Your task to perform on an android device: search for accent chairs on article.com Image 0: 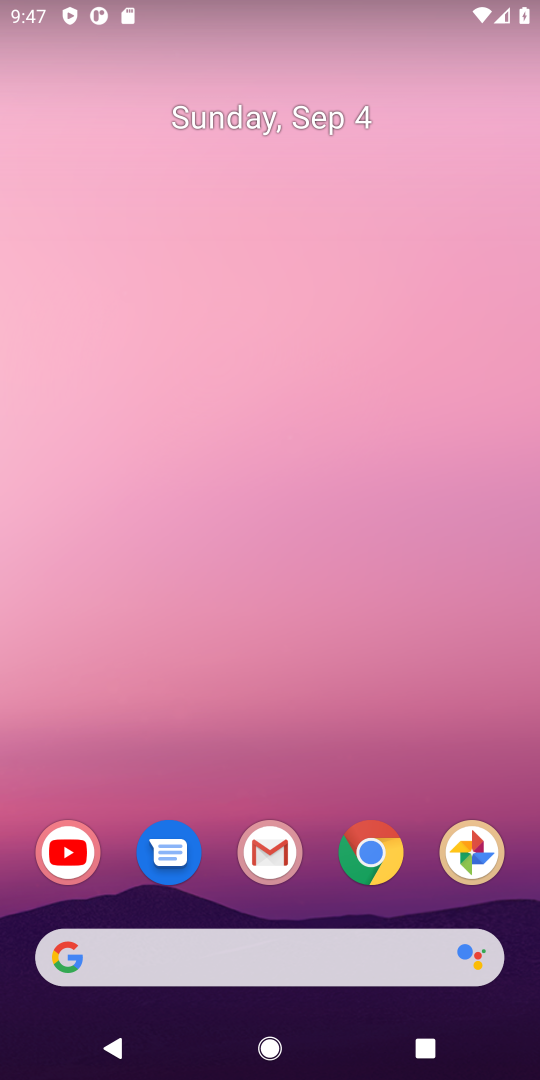
Step 0: drag from (312, 441) to (213, 34)
Your task to perform on an android device: search for accent chairs on article.com Image 1: 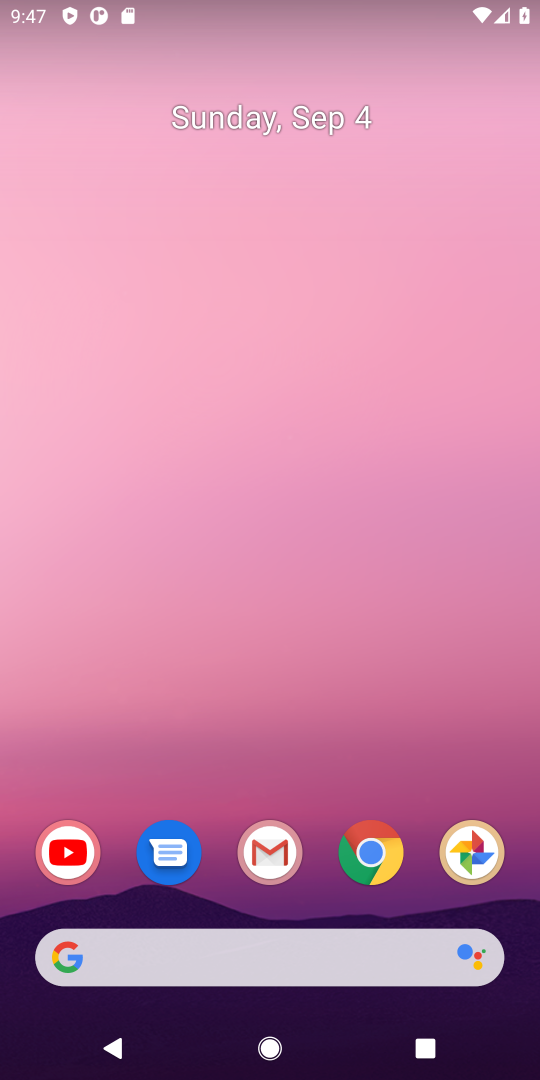
Step 1: drag from (436, 887) to (246, 23)
Your task to perform on an android device: search for accent chairs on article.com Image 2: 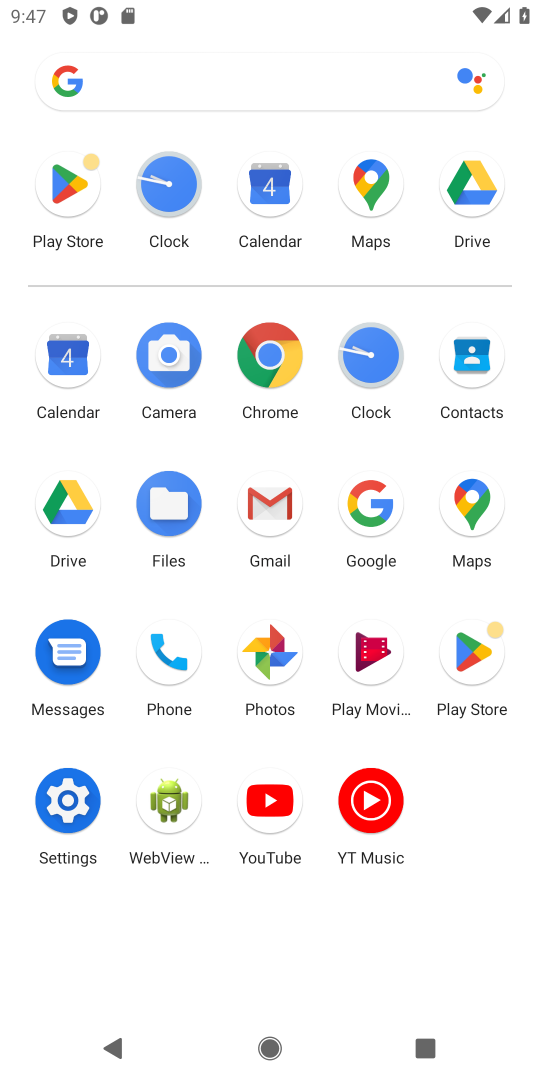
Step 2: click (377, 498)
Your task to perform on an android device: search for accent chairs on article.com Image 3: 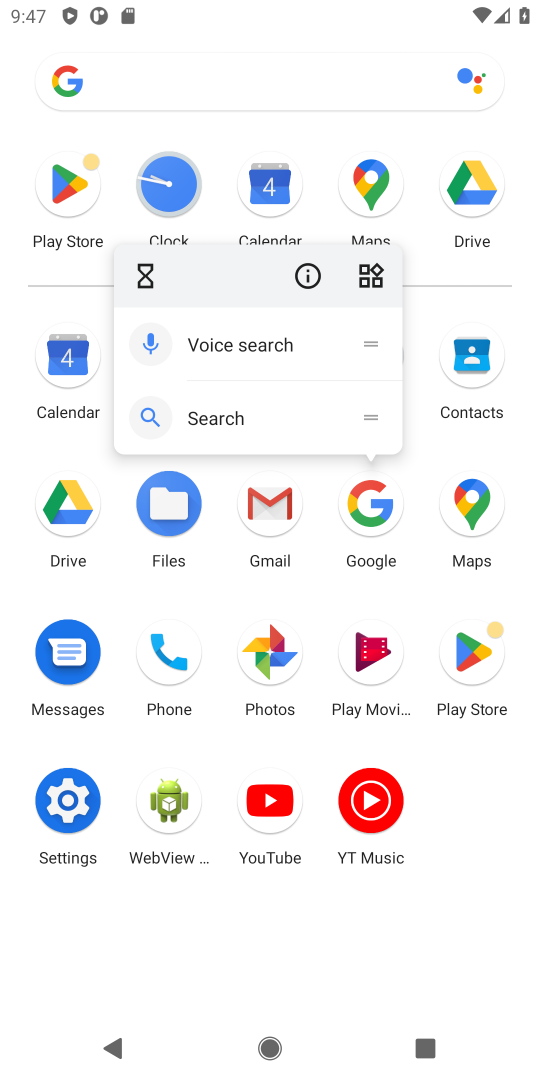
Step 3: click (377, 498)
Your task to perform on an android device: search for accent chairs on article.com Image 4: 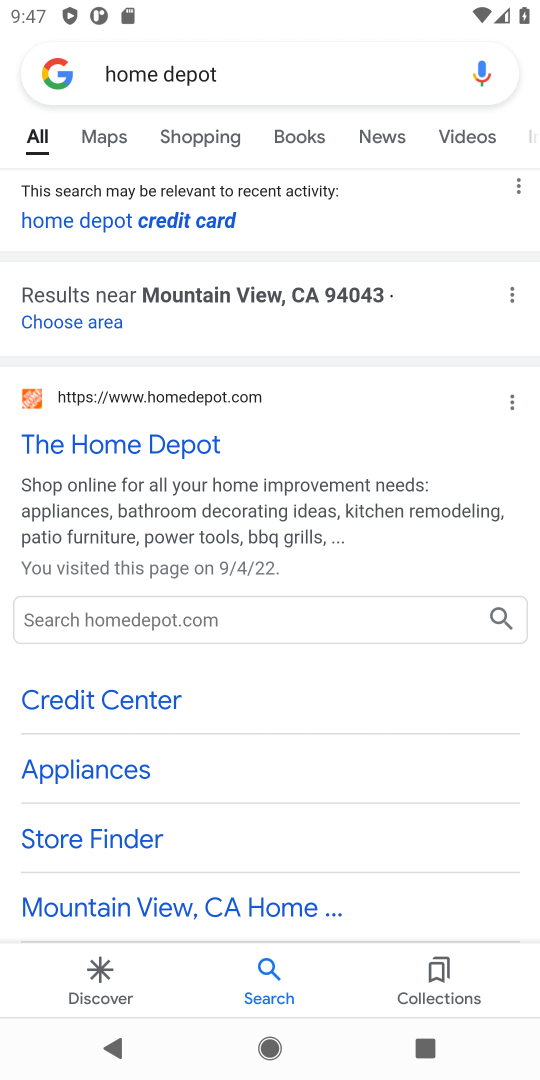
Step 4: press back button
Your task to perform on an android device: search for accent chairs on article.com Image 5: 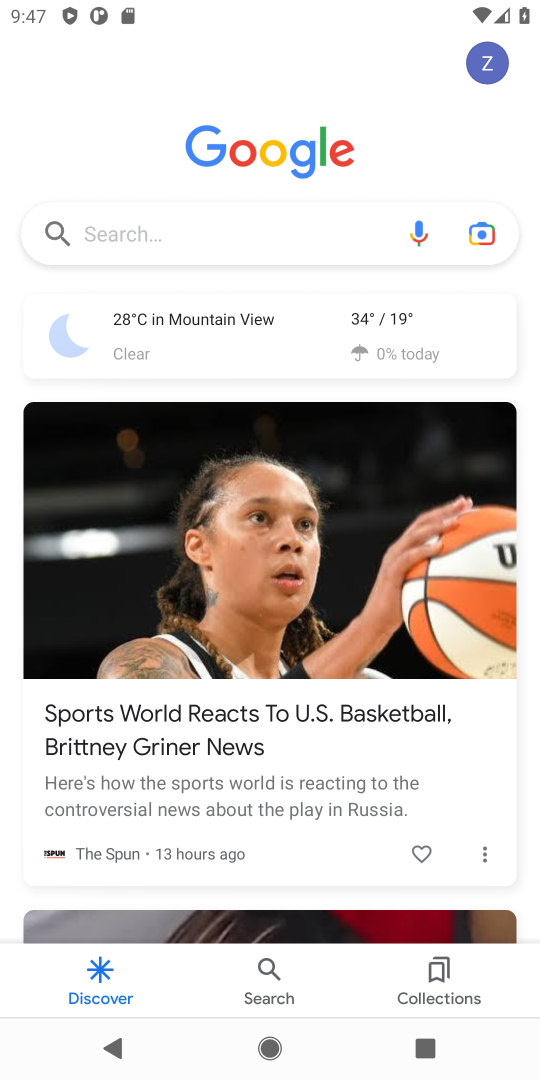
Step 5: click (205, 235)
Your task to perform on an android device: search for accent chairs on article.com Image 6: 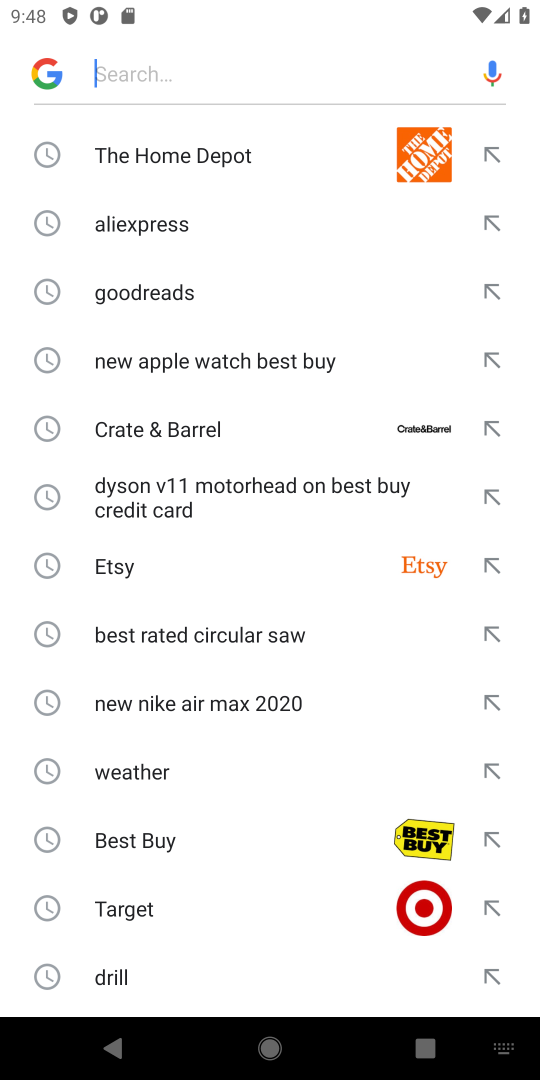
Step 6: type "article.com"
Your task to perform on an android device: search for accent chairs on article.com Image 7: 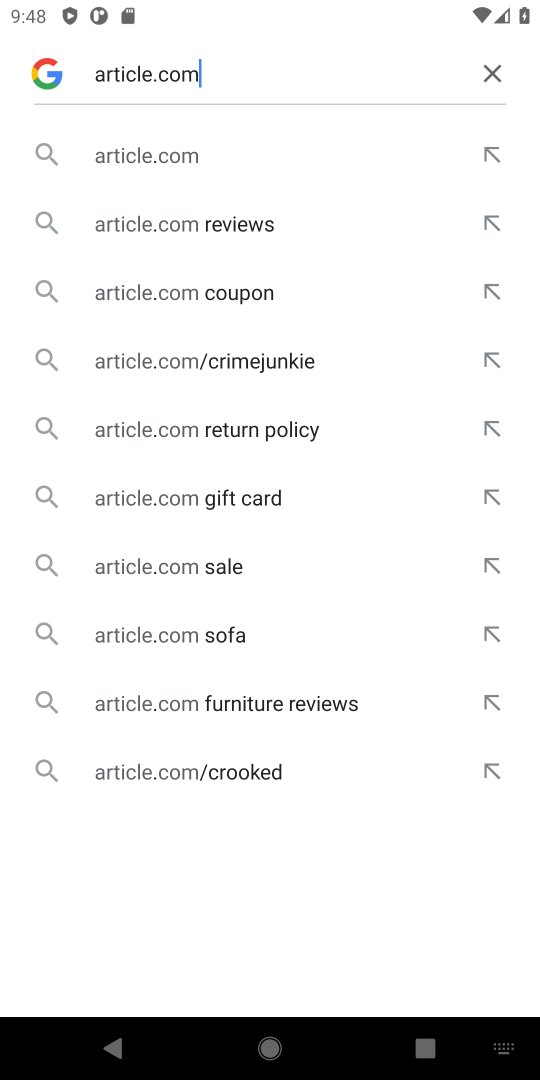
Step 7: click (126, 159)
Your task to perform on an android device: search for accent chairs on article.com Image 8: 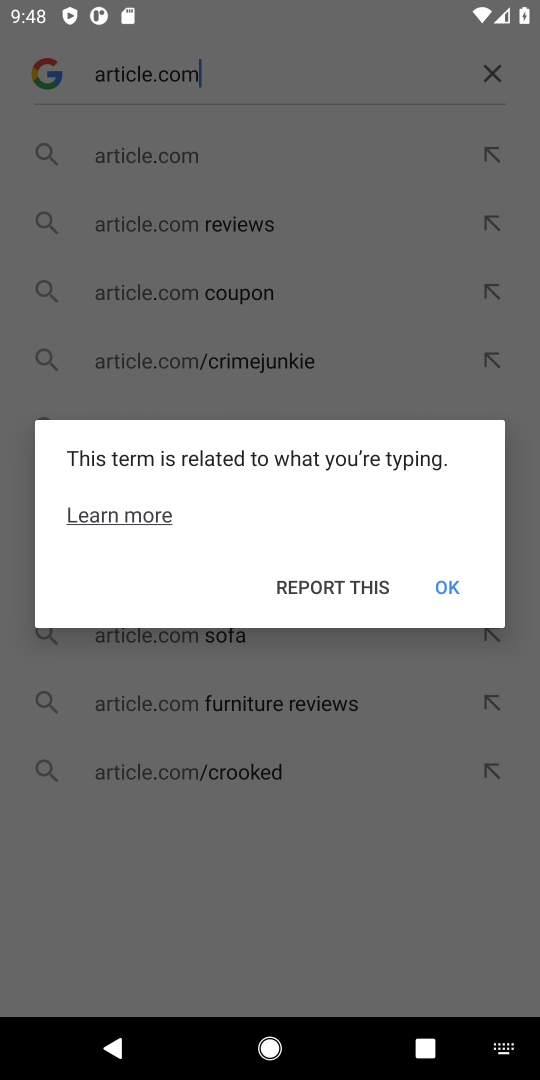
Step 8: click (438, 586)
Your task to perform on an android device: search for accent chairs on article.com Image 9: 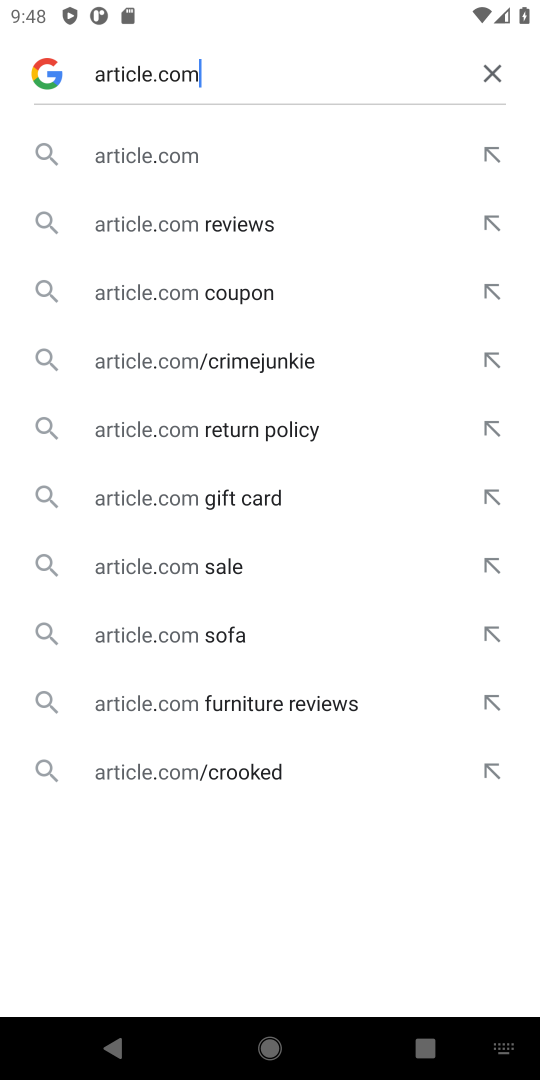
Step 9: click (188, 162)
Your task to perform on an android device: search for accent chairs on article.com Image 10: 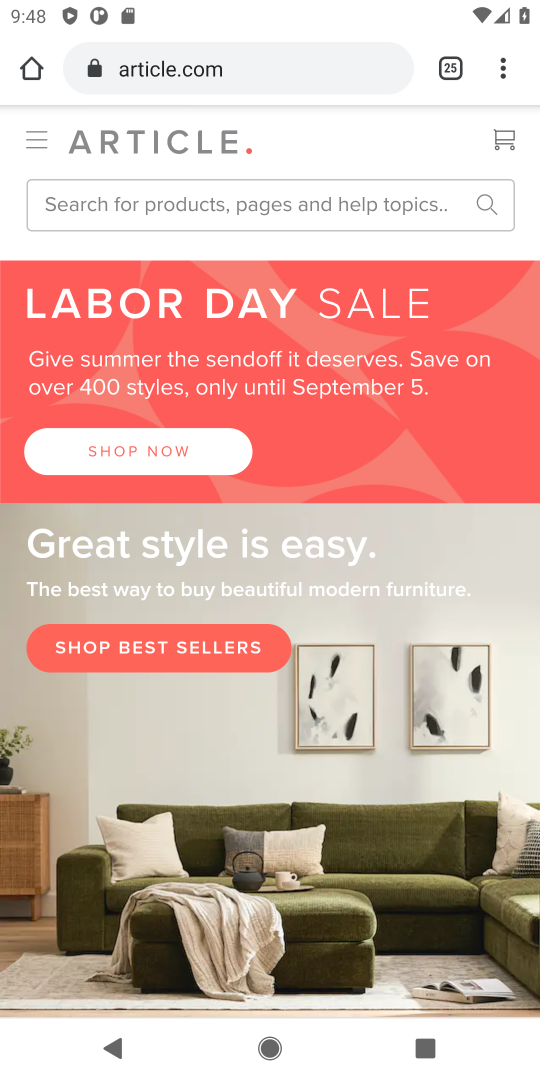
Step 10: click (146, 200)
Your task to perform on an android device: search for accent chairs on article.com Image 11: 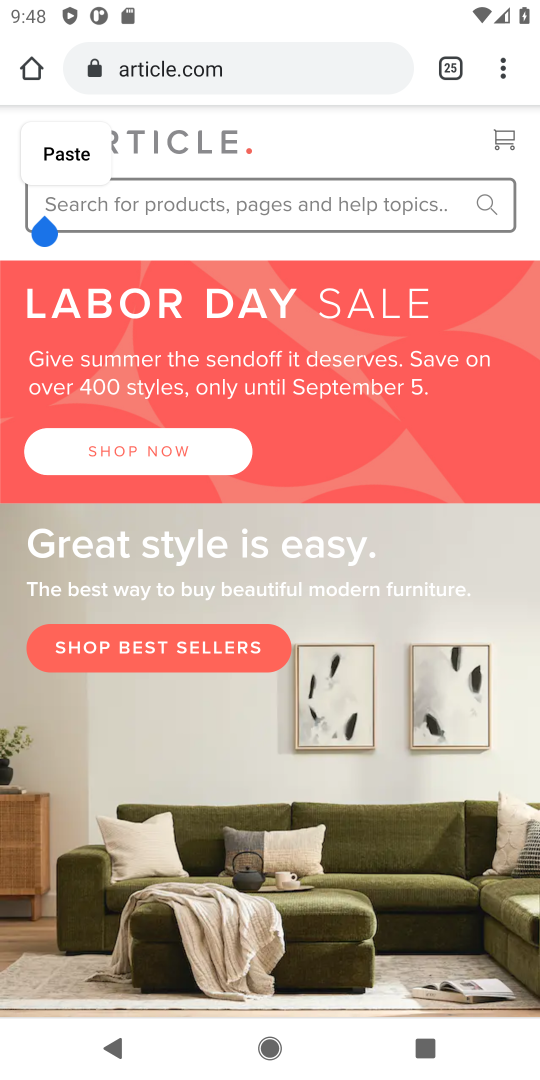
Step 11: type "accent chairs"
Your task to perform on an android device: search for accent chairs on article.com Image 12: 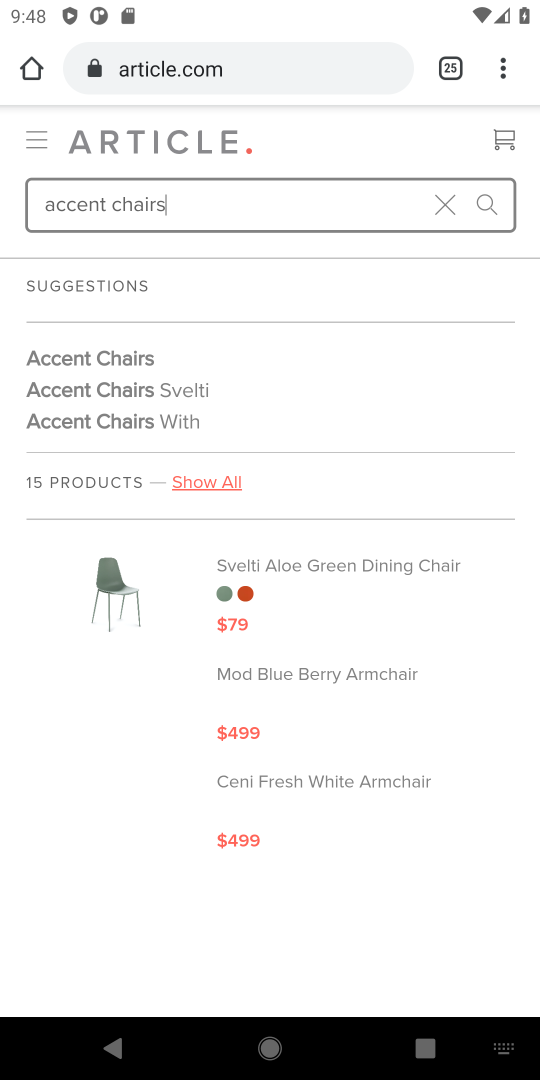
Step 12: click (494, 199)
Your task to perform on an android device: search for accent chairs on article.com Image 13: 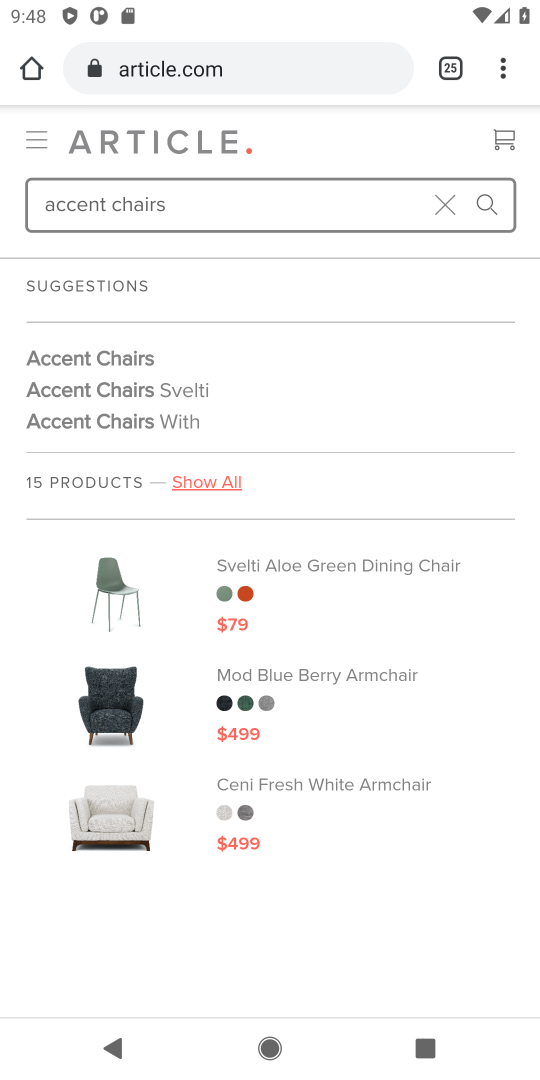
Step 13: task complete